Your task to perform on an android device: Go to wifi settings Image 0: 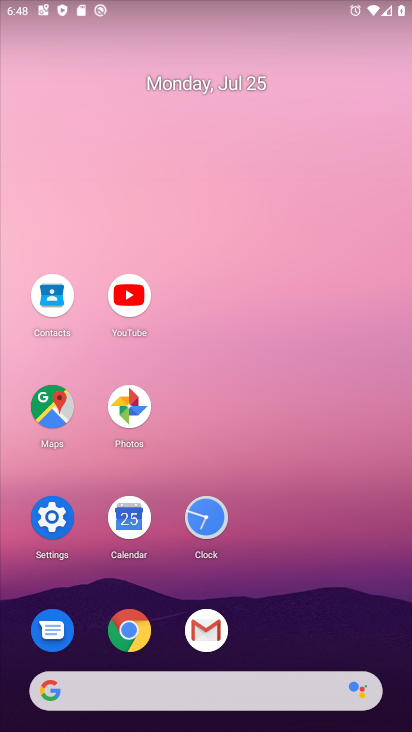
Step 0: click (43, 513)
Your task to perform on an android device: Go to wifi settings Image 1: 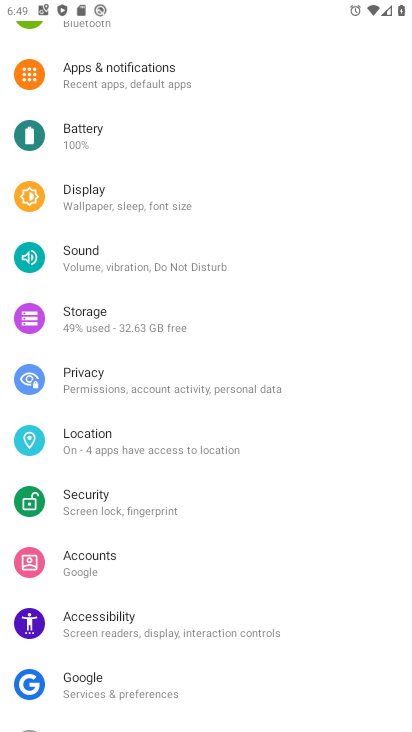
Step 1: drag from (219, 144) to (307, 701)
Your task to perform on an android device: Go to wifi settings Image 2: 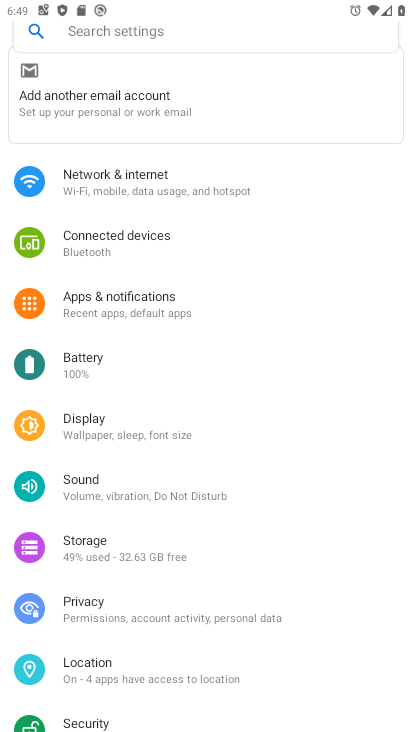
Step 2: click (124, 179)
Your task to perform on an android device: Go to wifi settings Image 3: 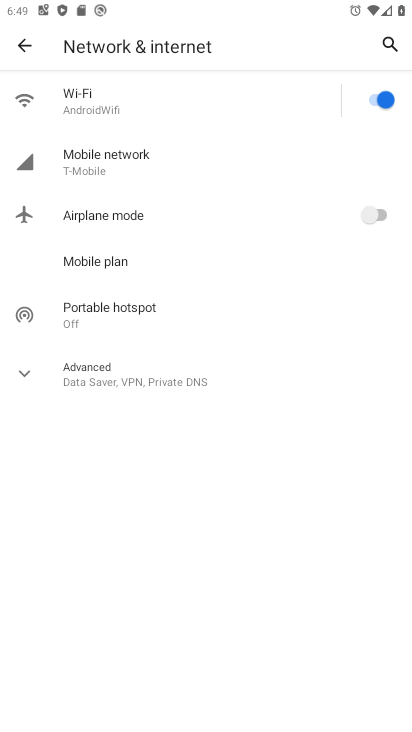
Step 3: click (67, 100)
Your task to perform on an android device: Go to wifi settings Image 4: 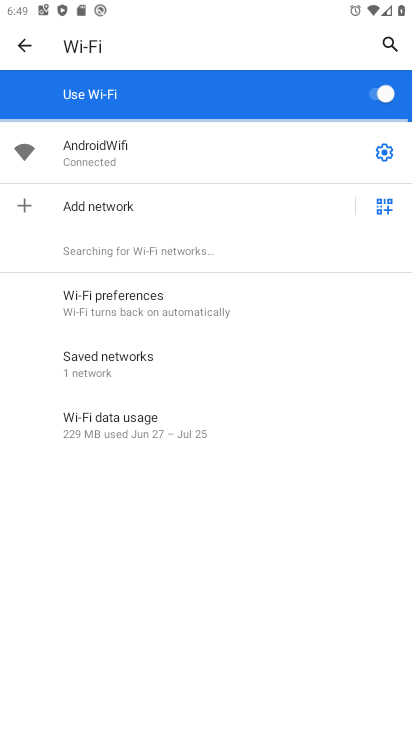
Step 4: task complete